Your task to perform on an android device: Open Amazon Image 0: 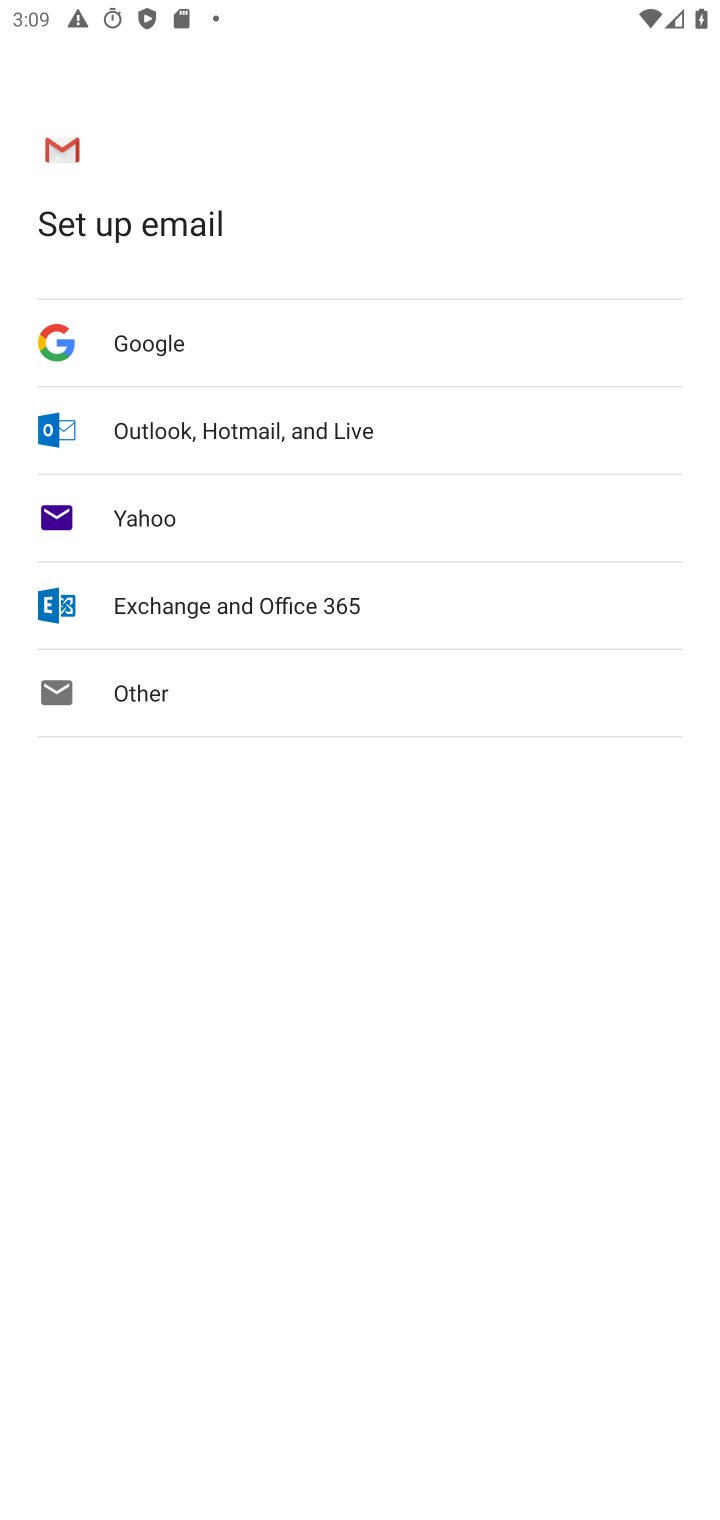
Step 0: press home button
Your task to perform on an android device: Open Amazon Image 1: 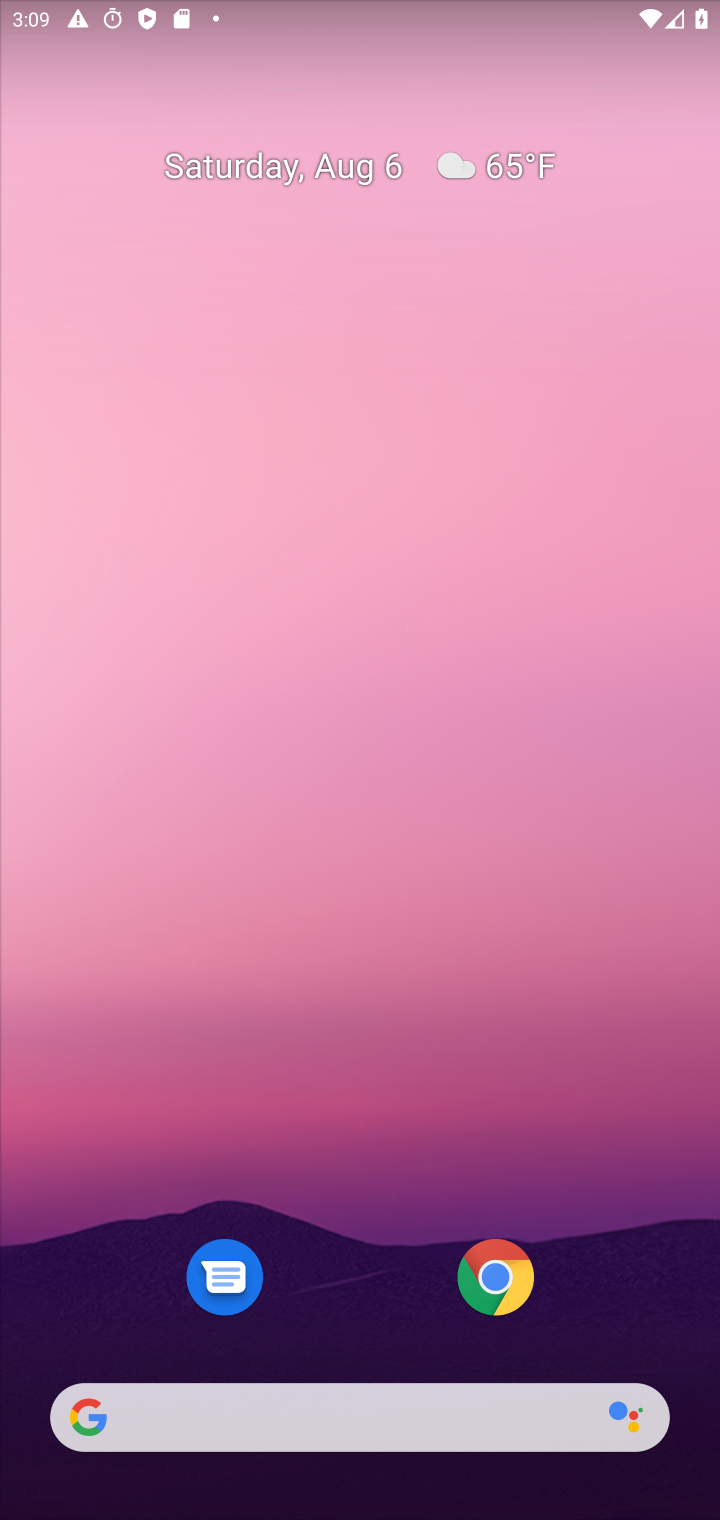
Step 1: drag from (448, 1436) to (276, 140)
Your task to perform on an android device: Open Amazon Image 2: 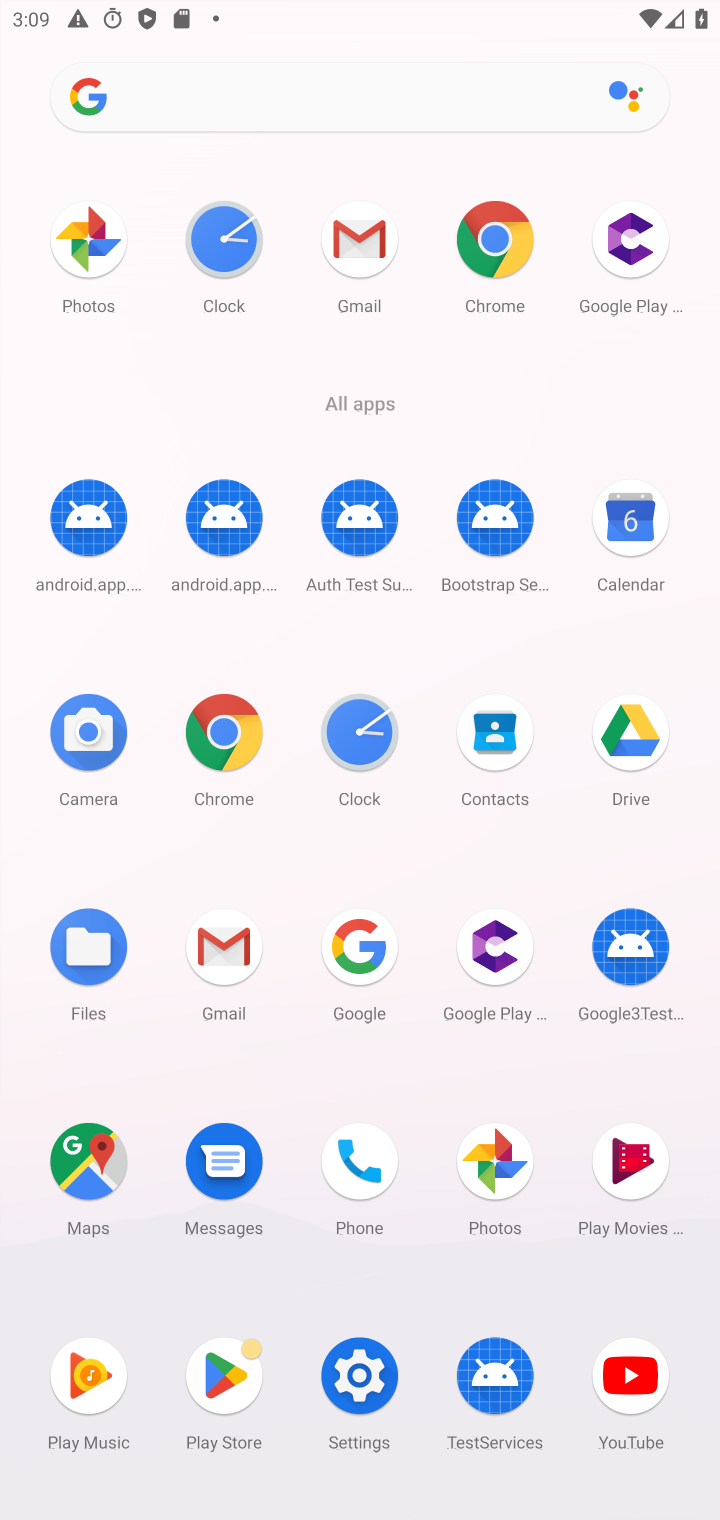
Step 2: click (225, 710)
Your task to perform on an android device: Open Amazon Image 3: 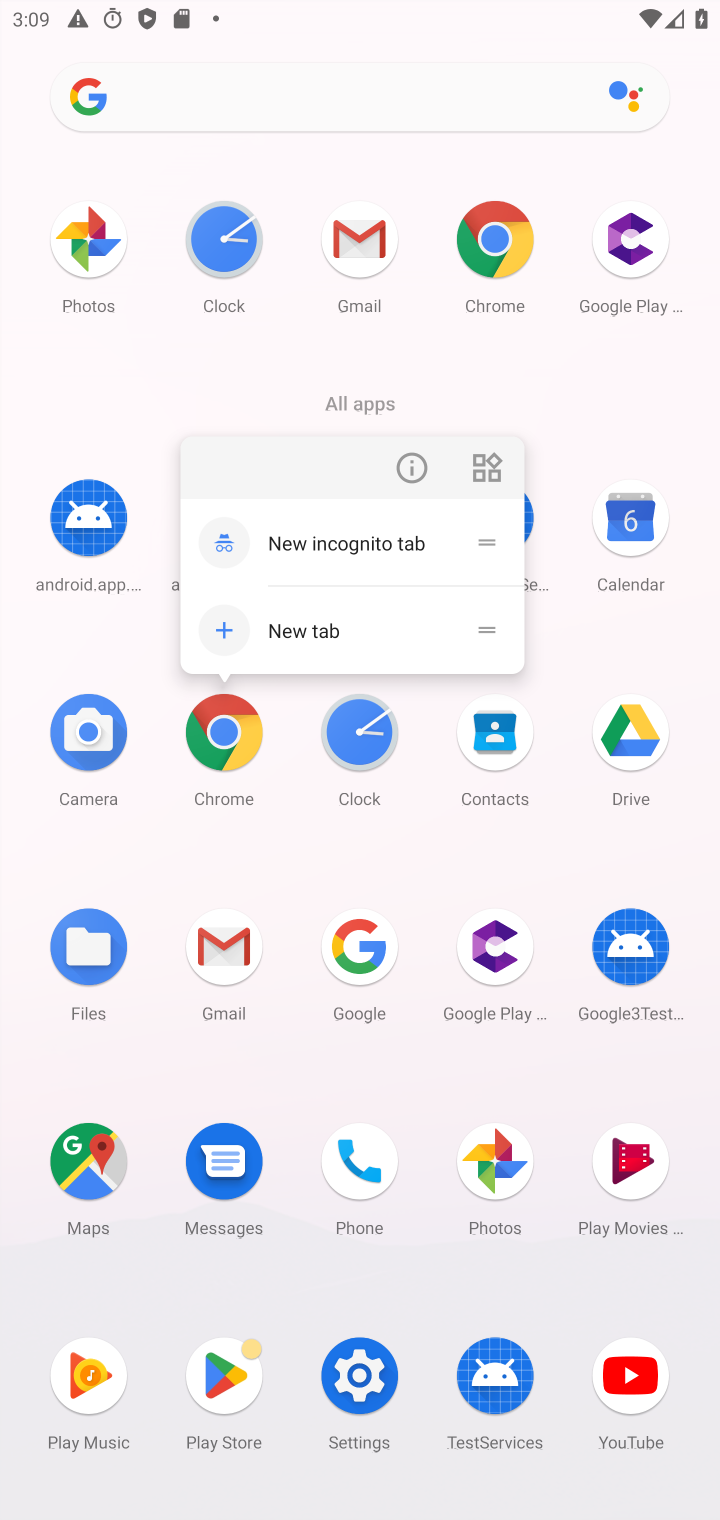
Step 3: click (225, 719)
Your task to perform on an android device: Open Amazon Image 4: 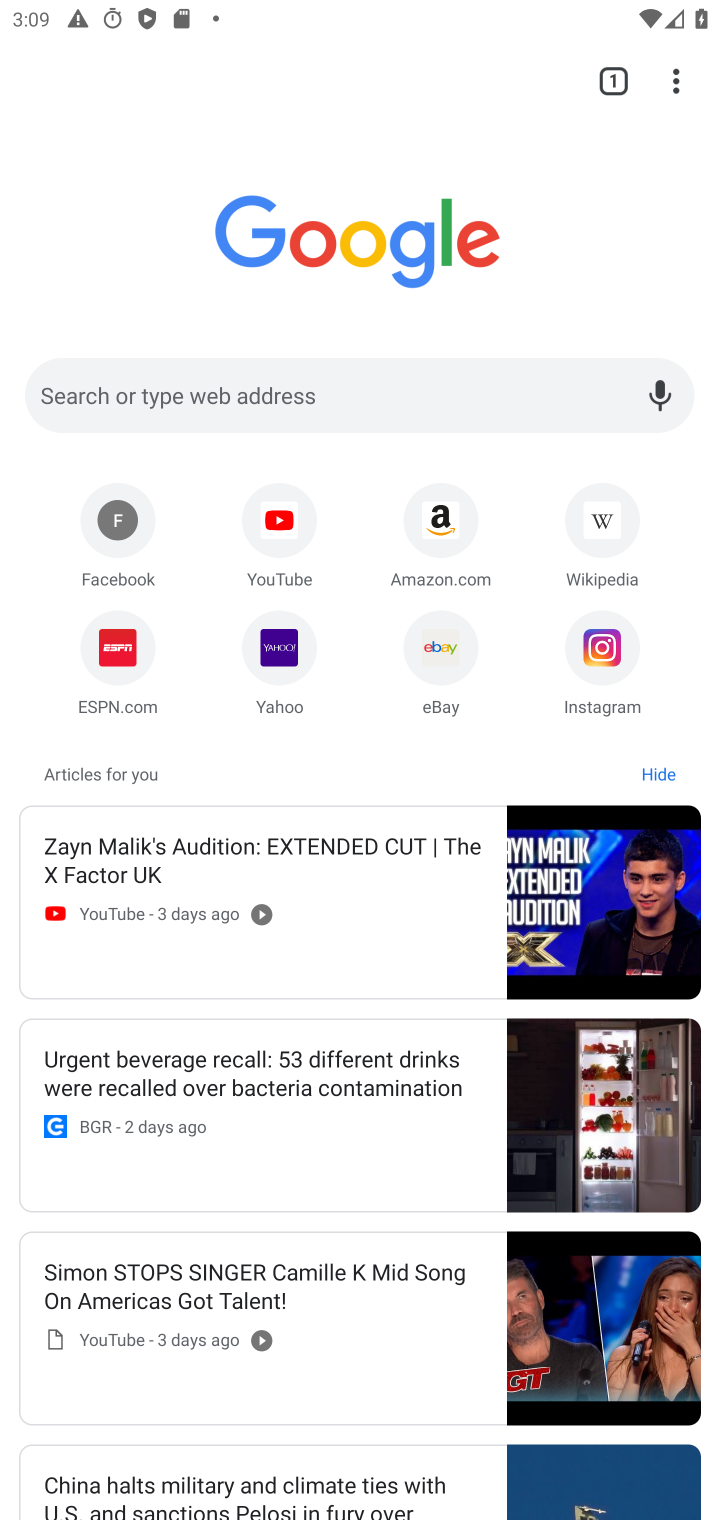
Step 4: click (464, 523)
Your task to perform on an android device: Open Amazon Image 5: 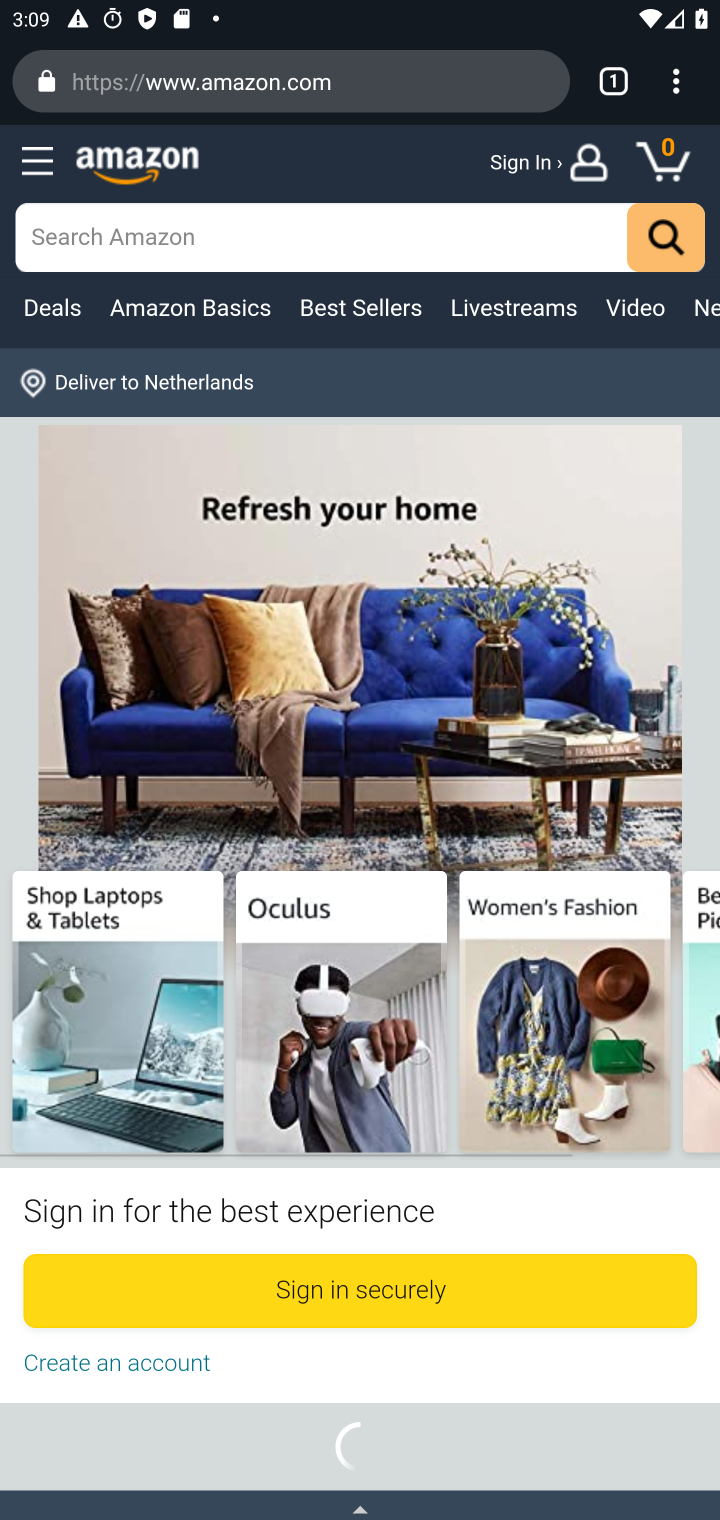
Step 5: task complete